Your task to perform on an android device: Go to Android settings Image 0: 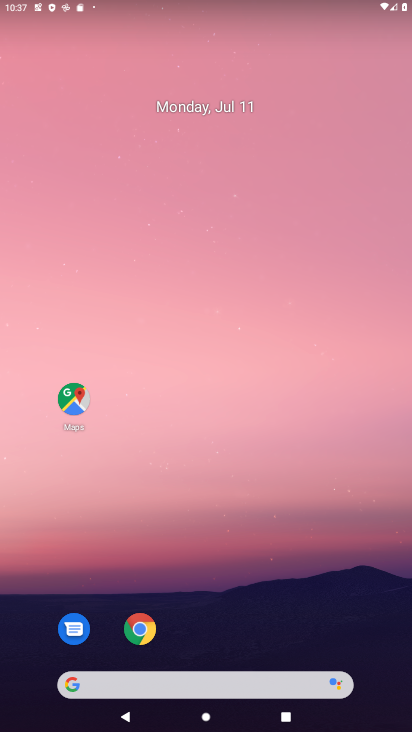
Step 0: drag from (221, 658) to (202, 2)
Your task to perform on an android device: Go to Android settings Image 1: 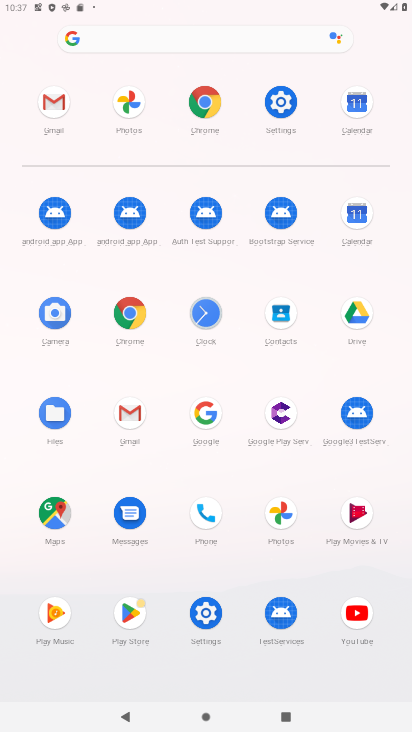
Step 1: click (276, 120)
Your task to perform on an android device: Go to Android settings Image 2: 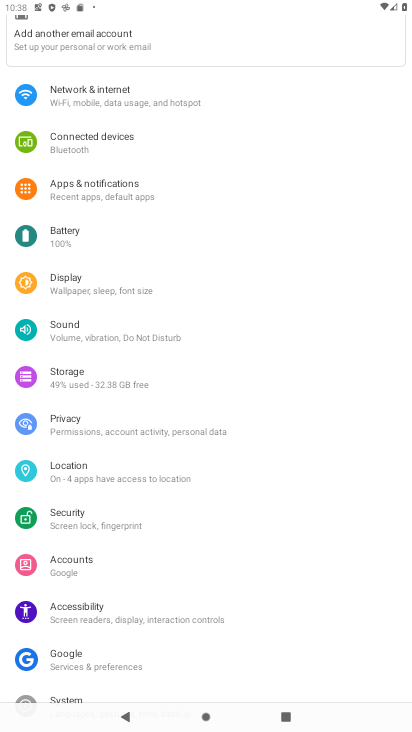
Step 2: drag from (141, 632) to (127, 260)
Your task to perform on an android device: Go to Android settings Image 3: 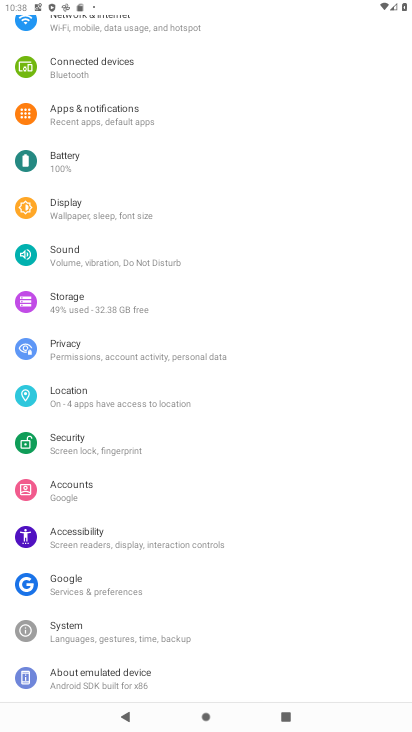
Step 3: click (192, 667)
Your task to perform on an android device: Go to Android settings Image 4: 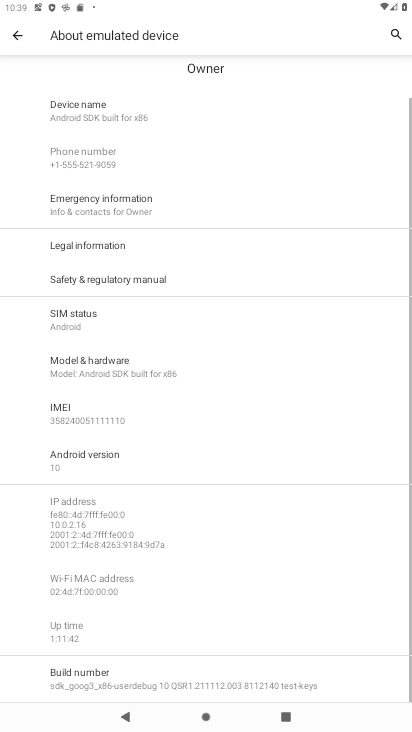
Step 4: task complete